Your task to perform on an android device: check out phone information Image 0: 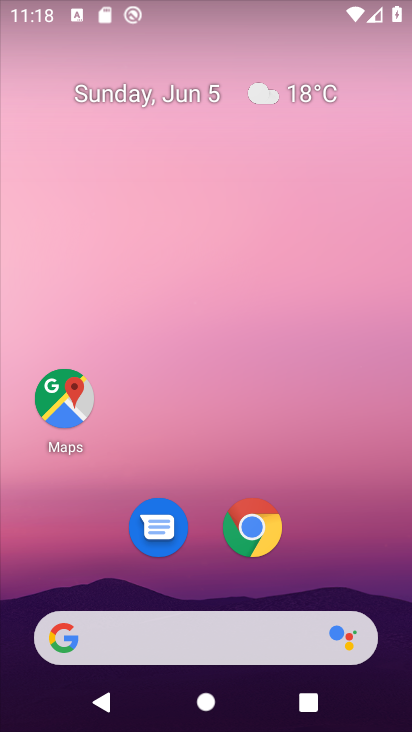
Step 0: drag from (321, 561) to (370, 312)
Your task to perform on an android device: check out phone information Image 1: 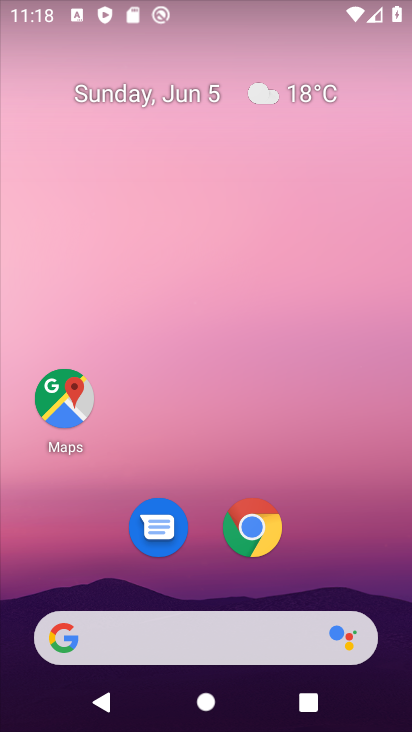
Step 1: drag from (312, 530) to (287, 291)
Your task to perform on an android device: check out phone information Image 2: 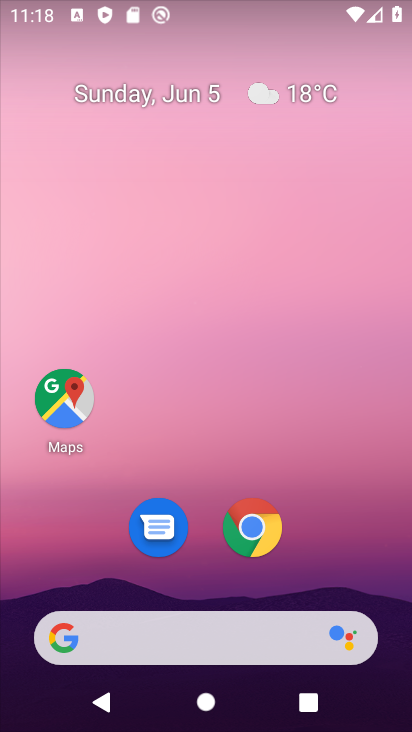
Step 2: drag from (347, 485) to (399, 48)
Your task to perform on an android device: check out phone information Image 3: 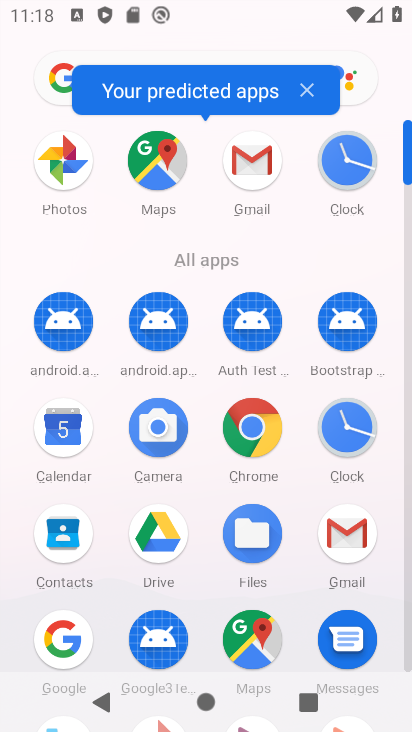
Step 3: click (411, 567)
Your task to perform on an android device: check out phone information Image 4: 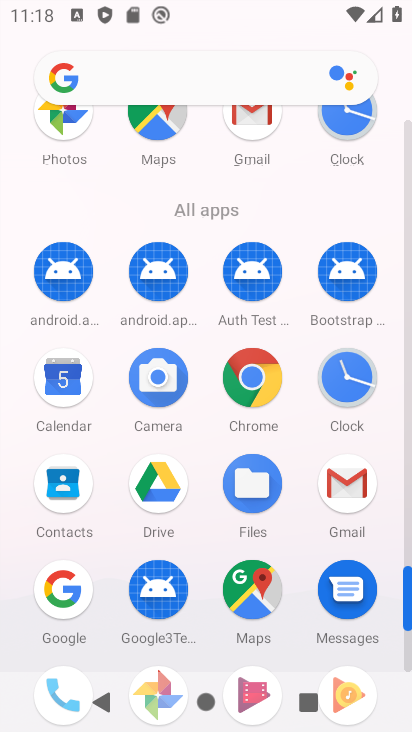
Step 4: click (409, 650)
Your task to perform on an android device: check out phone information Image 5: 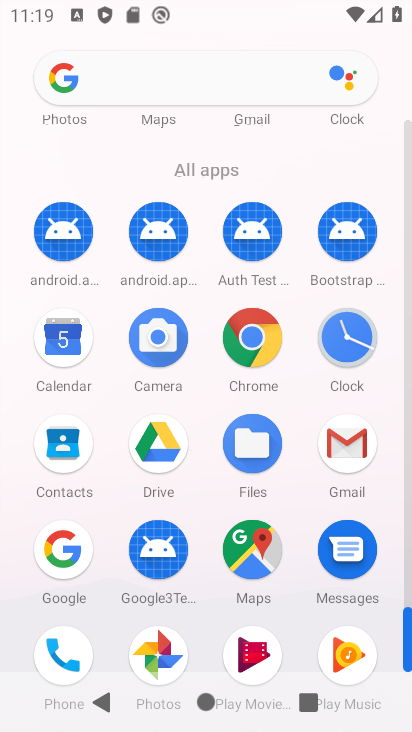
Step 5: click (405, 697)
Your task to perform on an android device: check out phone information Image 6: 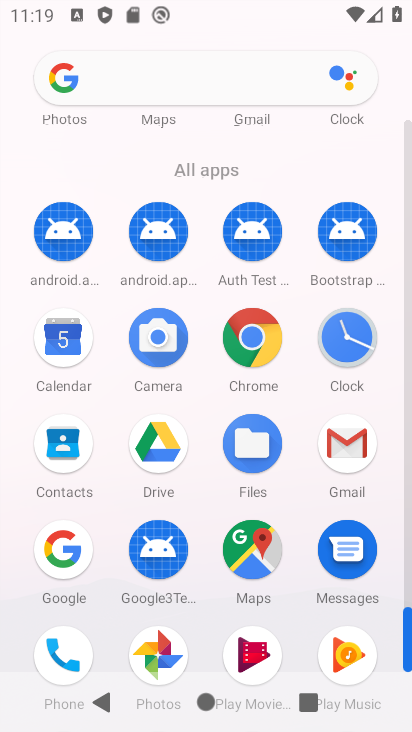
Step 6: click (410, 701)
Your task to perform on an android device: check out phone information Image 7: 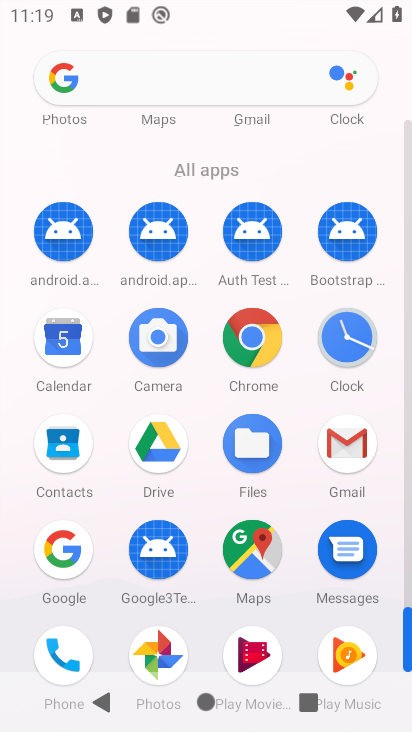
Step 7: drag from (360, 549) to (379, 468)
Your task to perform on an android device: check out phone information Image 8: 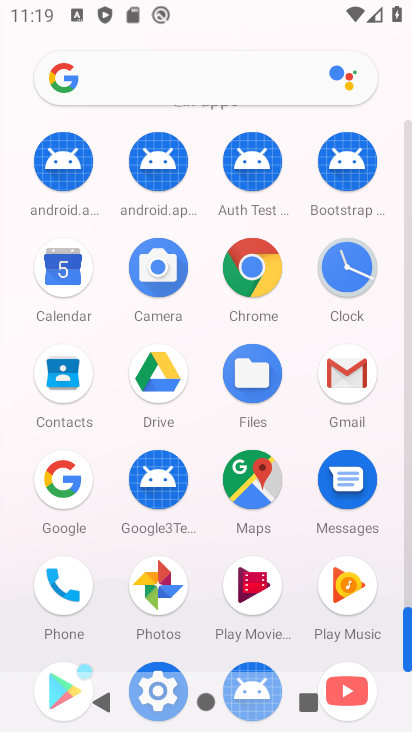
Step 8: drag from (408, 651) to (387, 406)
Your task to perform on an android device: check out phone information Image 9: 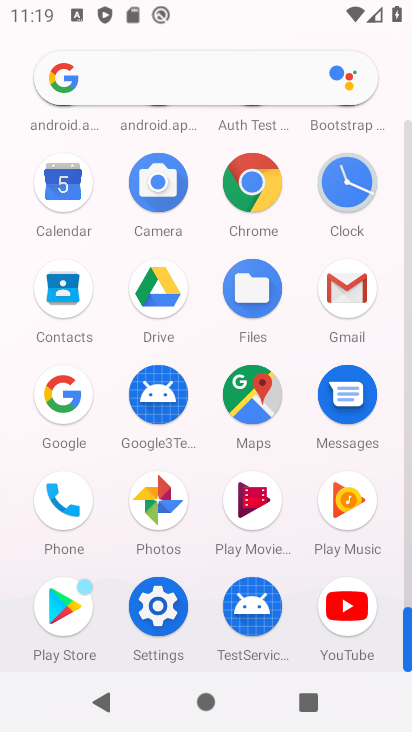
Step 9: click (156, 604)
Your task to perform on an android device: check out phone information Image 10: 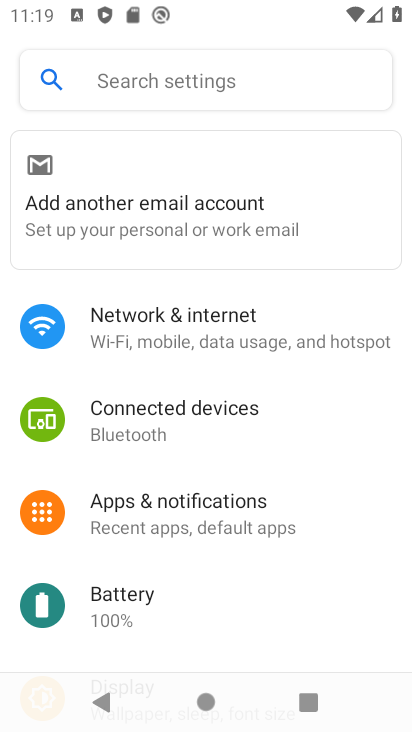
Step 10: drag from (319, 596) to (344, 434)
Your task to perform on an android device: check out phone information Image 11: 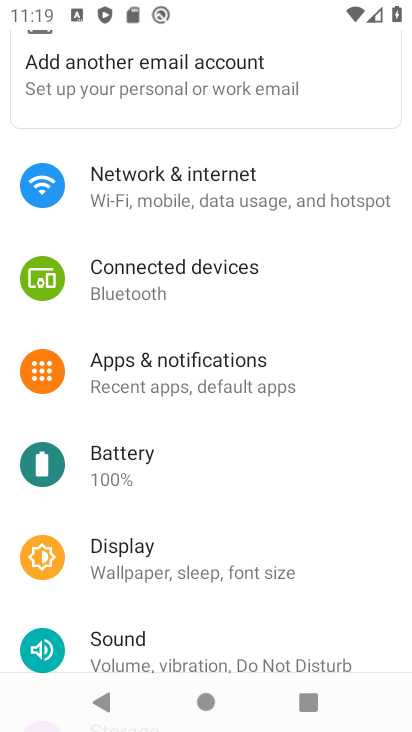
Step 11: drag from (375, 584) to (6, 421)
Your task to perform on an android device: check out phone information Image 12: 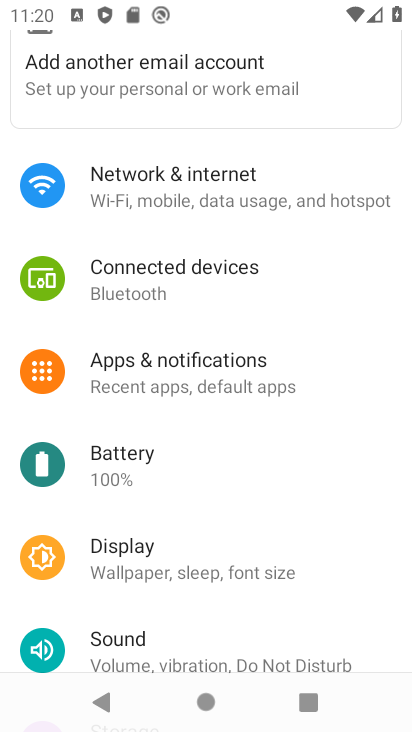
Step 12: drag from (361, 617) to (338, 265)
Your task to perform on an android device: check out phone information Image 13: 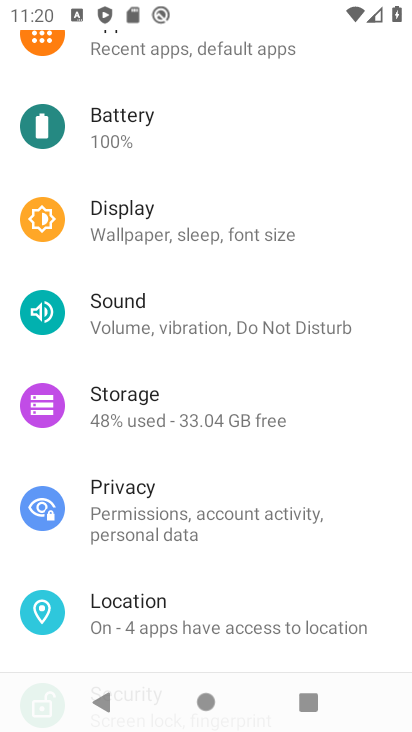
Step 13: drag from (380, 593) to (383, 224)
Your task to perform on an android device: check out phone information Image 14: 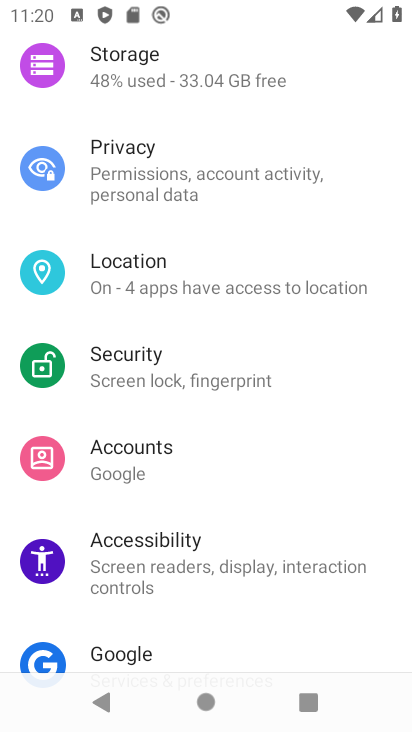
Step 14: drag from (345, 578) to (329, 292)
Your task to perform on an android device: check out phone information Image 15: 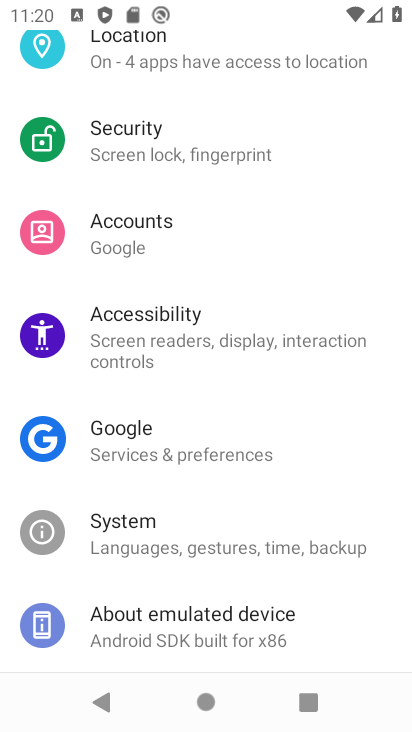
Step 15: click (173, 629)
Your task to perform on an android device: check out phone information Image 16: 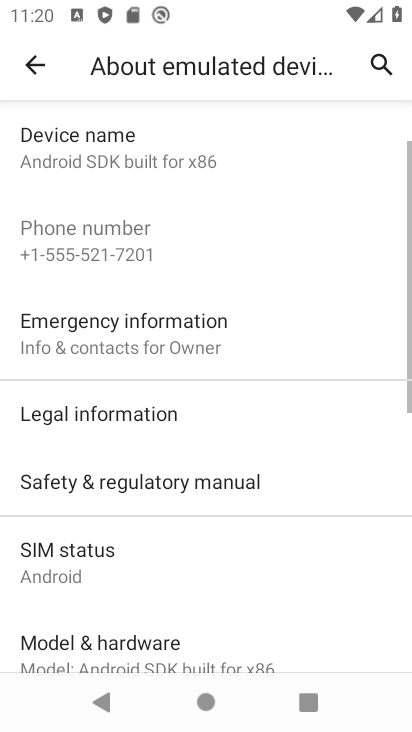
Step 16: task complete